Your task to perform on an android device: Open ESPN.com Image 0: 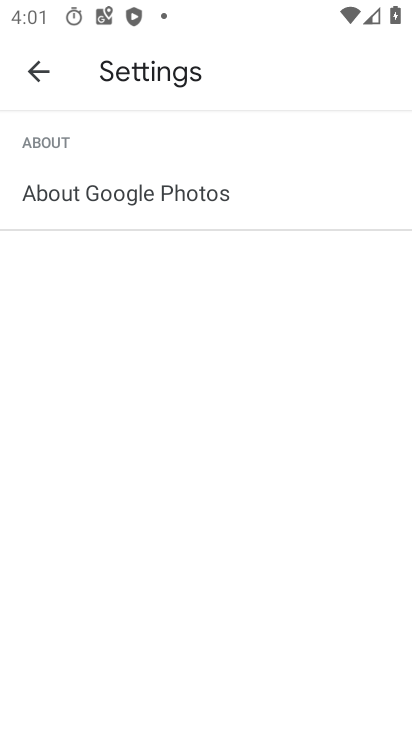
Step 0: press home button
Your task to perform on an android device: Open ESPN.com Image 1: 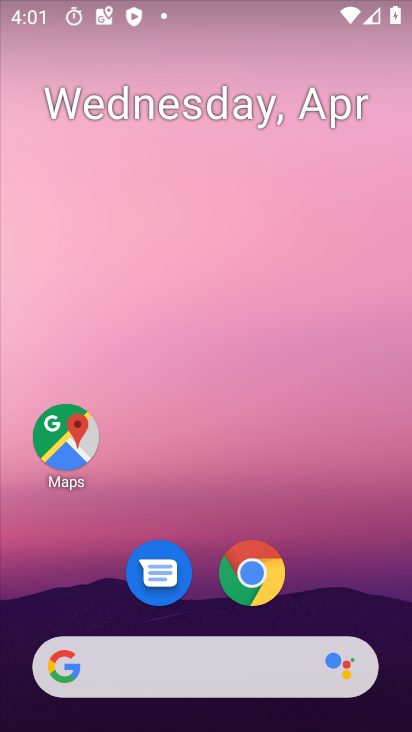
Step 1: click (244, 565)
Your task to perform on an android device: Open ESPN.com Image 2: 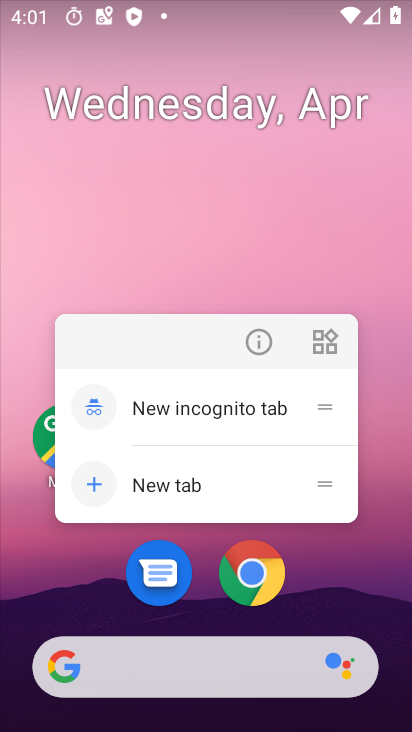
Step 2: click (240, 565)
Your task to perform on an android device: Open ESPN.com Image 3: 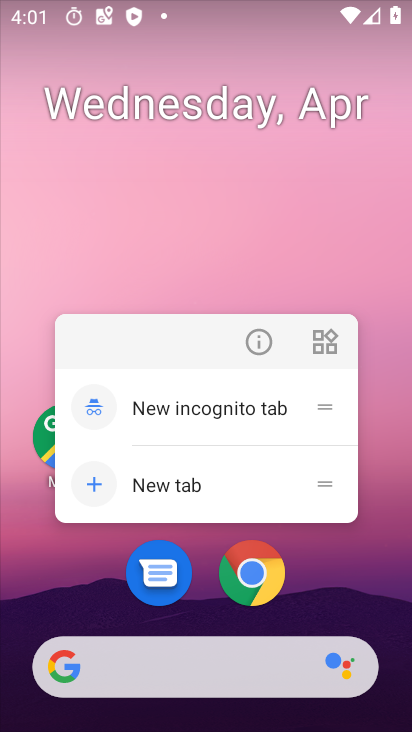
Step 3: click (240, 565)
Your task to perform on an android device: Open ESPN.com Image 4: 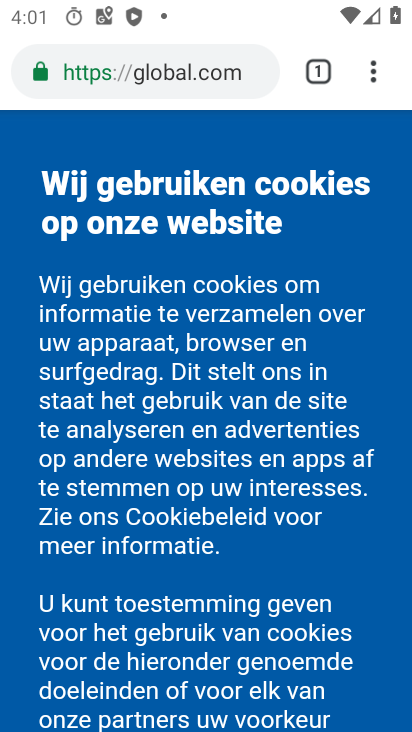
Step 4: click (237, 66)
Your task to perform on an android device: Open ESPN.com Image 5: 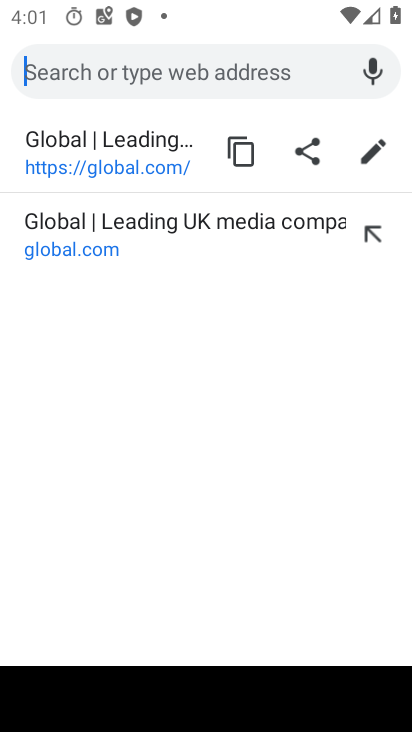
Step 5: type " ESPN.com"
Your task to perform on an android device: Open ESPN.com Image 6: 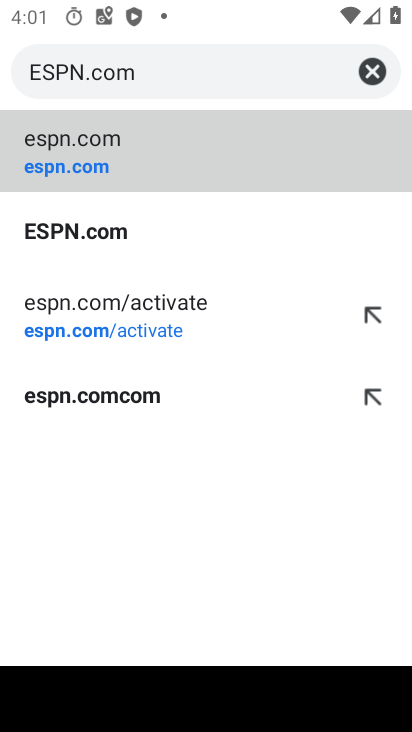
Step 6: click (83, 155)
Your task to perform on an android device: Open ESPN.com Image 7: 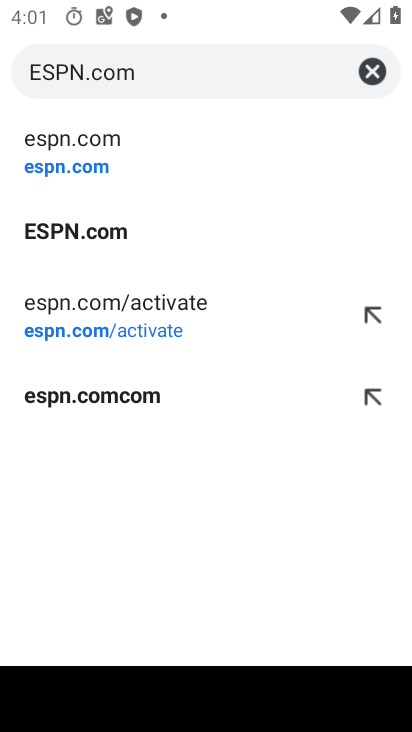
Step 7: click (68, 236)
Your task to perform on an android device: Open ESPN.com Image 8: 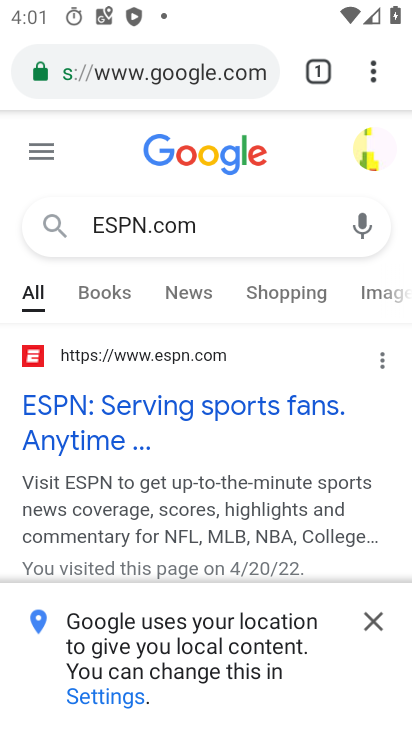
Step 8: task complete